Your task to perform on an android device: Is it going to rain today? Image 0: 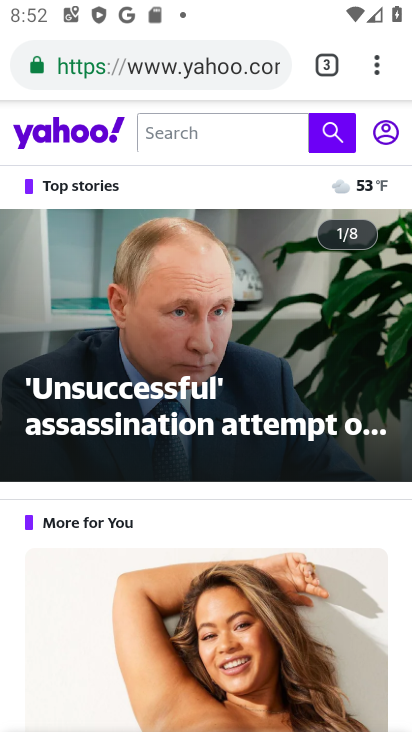
Step 0: press home button
Your task to perform on an android device: Is it going to rain today? Image 1: 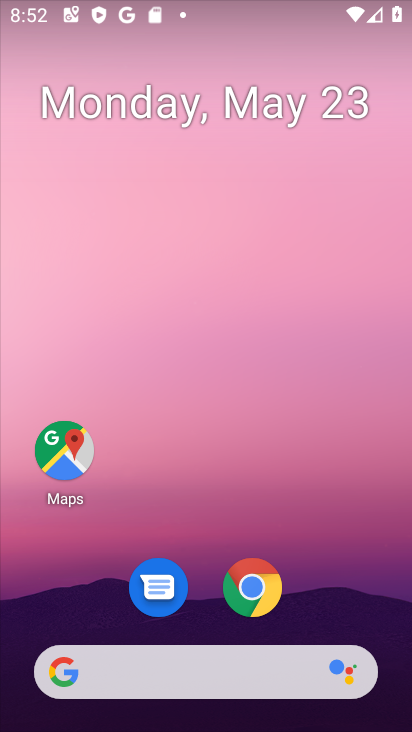
Step 1: drag from (191, 461) to (248, 51)
Your task to perform on an android device: Is it going to rain today? Image 2: 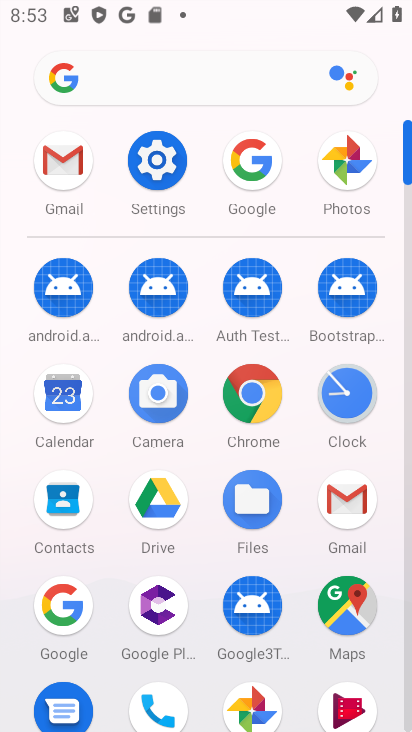
Step 2: click (183, 72)
Your task to perform on an android device: Is it going to rain today? Image 3: 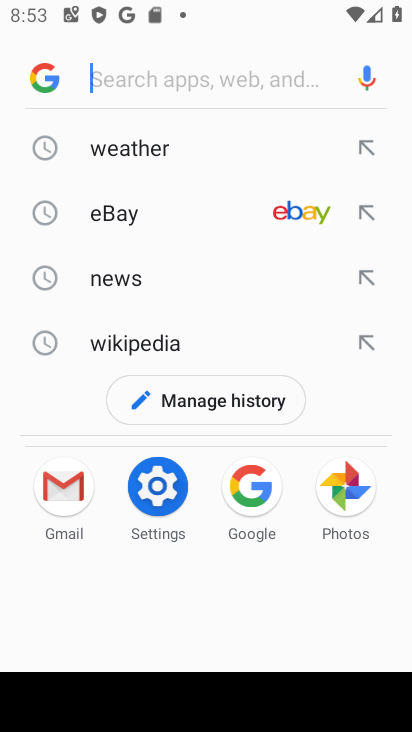
Step 3: click (144, 142)
Your task to perform on an android device: Is it going to rain today? Image 4: 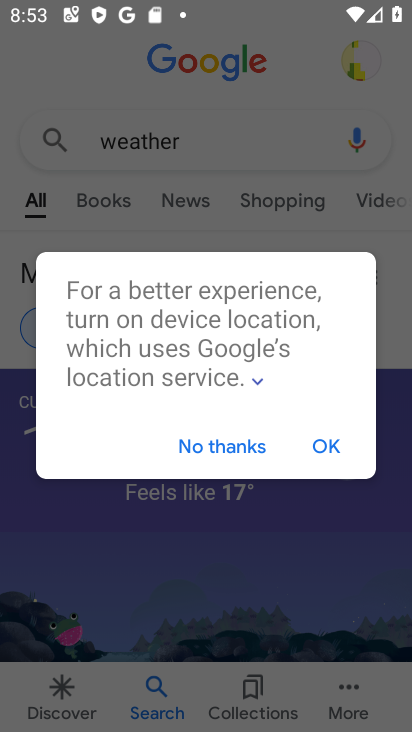
Step 4: click (331, 429)
Your task to perform on an android device: Is it going to rain today? Image 5: 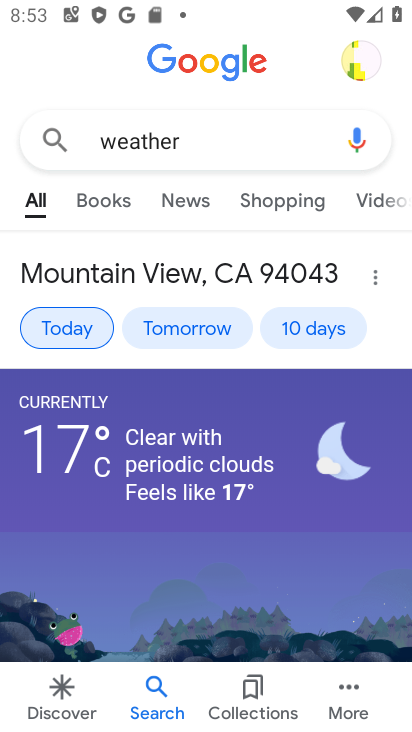
Step 5: task complete